Your task to perform on an android device: turn off smart reply in the gmail app Image 0: 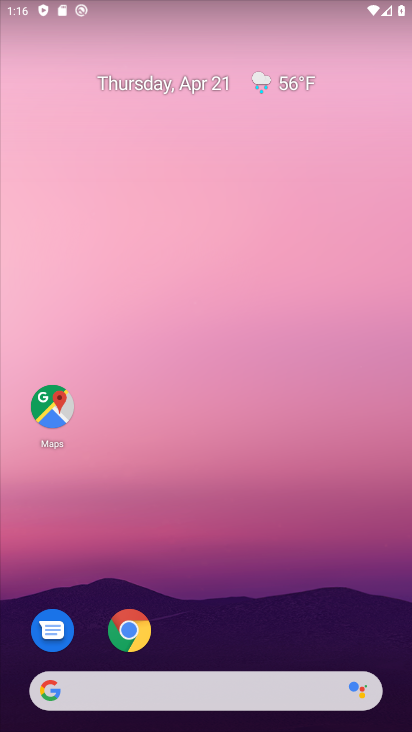
Step 0: drag from (301, 603) to (249, 39)
Your task to perform on an android device: turn off smart reply in the gmail app Image 1: 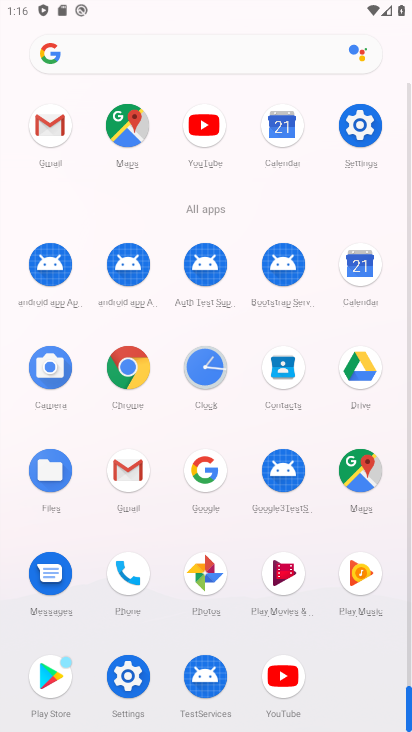
Step 1: click (133, 474)
Your task to perform on an android device: turn off smart reply in the gmail app Image 2: 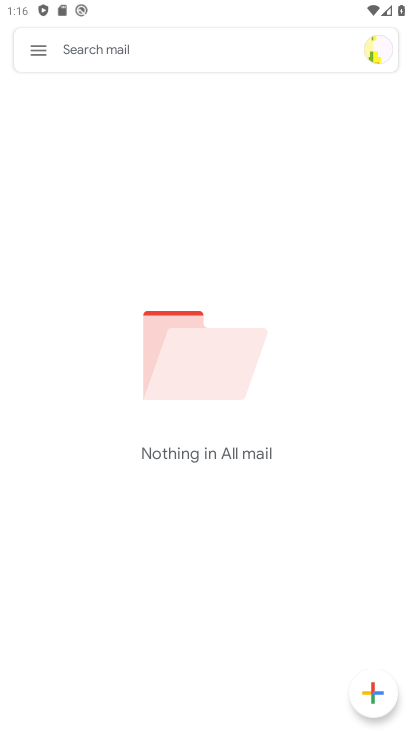
Step 2: click (21, 49)
Your task to perform on an android device: turn off smart reply in the gmail app Image 3: 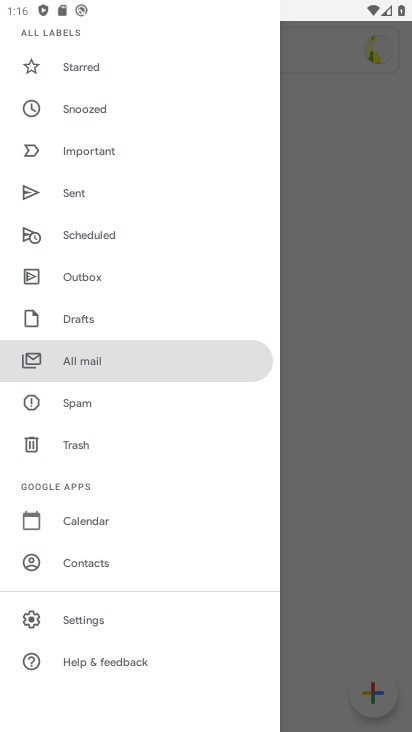
Step 3: click (110, 610)
Your task to perform on an android device: turn off smart reply in the gmail app Image 4: 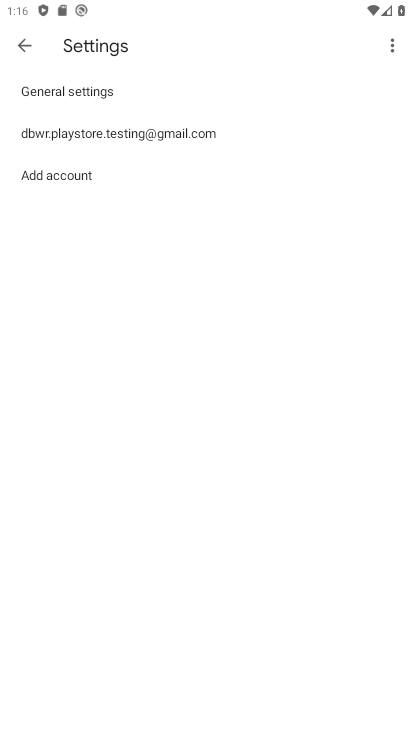
Step 4: click (84, 127)
Your task to perform on an android device: turn off smart reply in the gmail app Image 5: 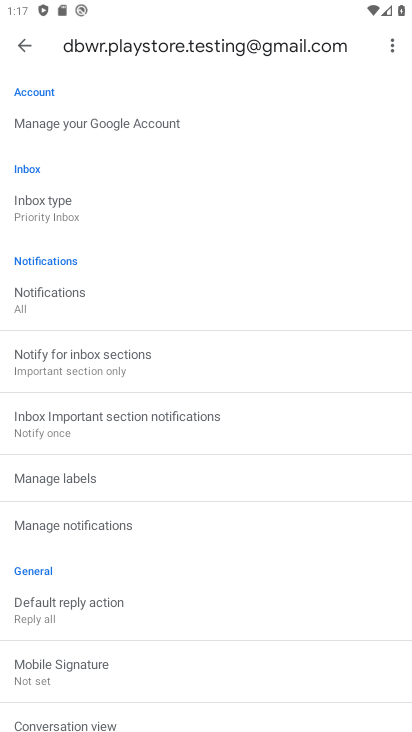
Step 5: drag from (115, 593) to (108, 128)
Your task to perform on an android device: turn off smart reply in the gmail app Image 6: 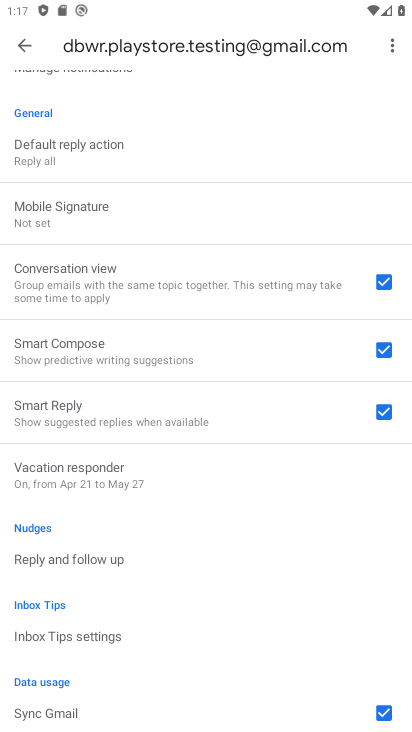
Step 6: click (383, 415)
Your task to perform on an android device: turn off smart reply in the gmail app Image 7: 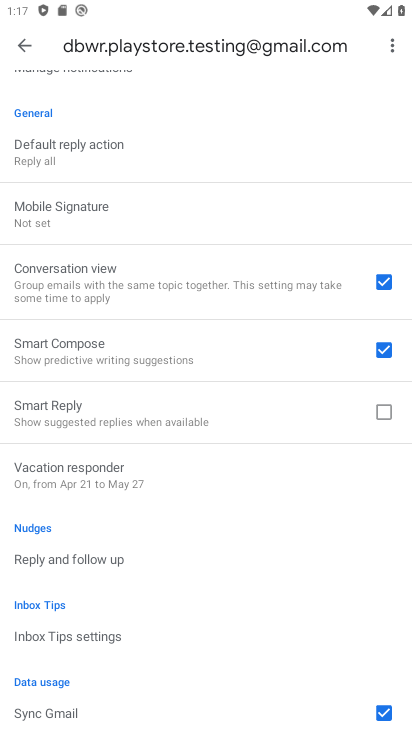
Step 7: task complete